Your task to perform on an android device: turn off picture-in-picture Image 0: 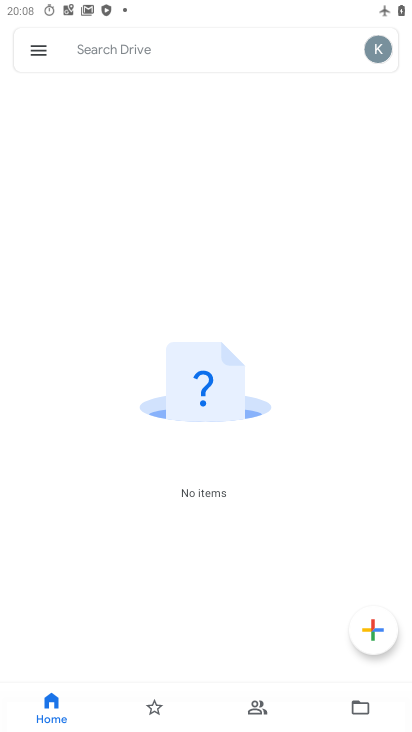
Step 0: press home button
Your task to perform on an android device: turn off picture-in-picture Image 1: 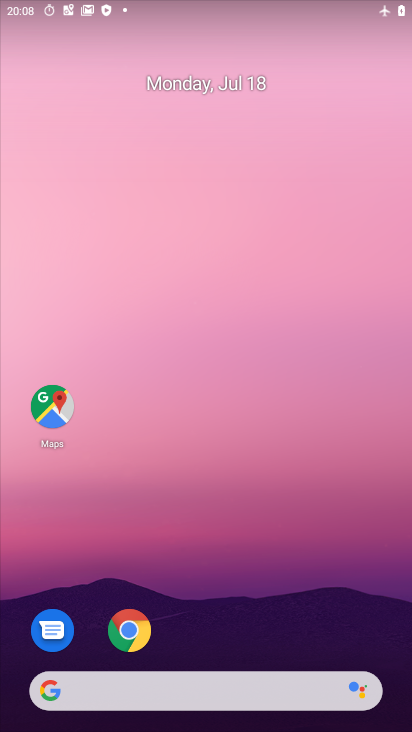
Step 1: drag from (272, 602) to (351, 97)
Your task to perform on an android device: turn off picture-in-picture Image 2: 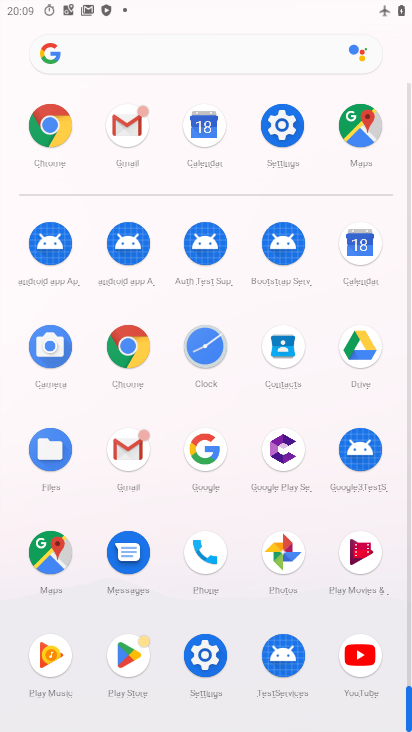
Step 2: click (70, 140)
Your task to perform on an android device: turn off picture-in-picture Image 3: 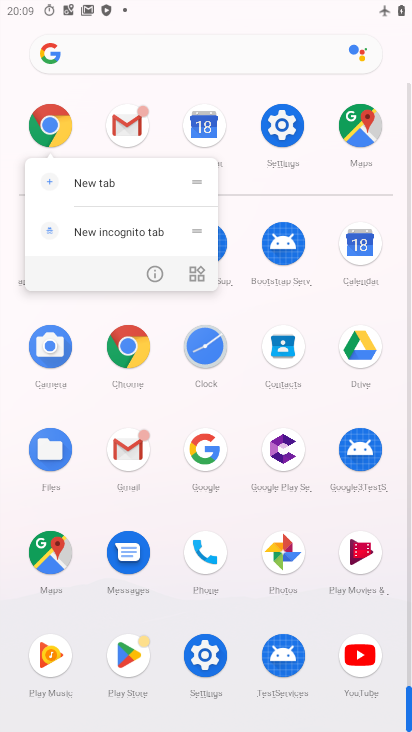
Step 3: click (152, 277)
Your task to perform on an android device: turn off picture-in-picture Image 4: 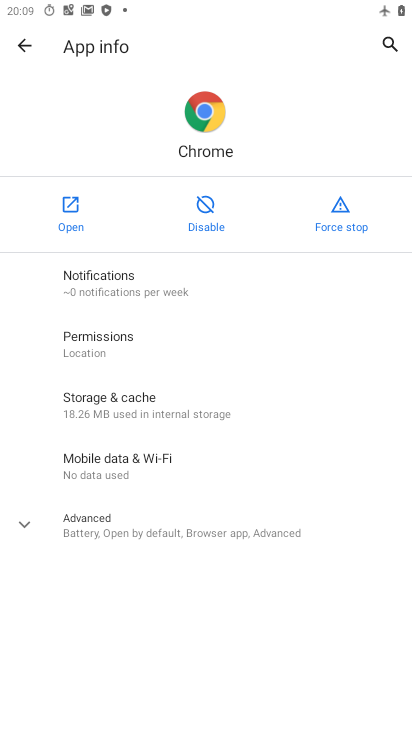
Step 4: click (81, 519)
Your task to perform on an android device: turn off picture-in-picture Image 5: 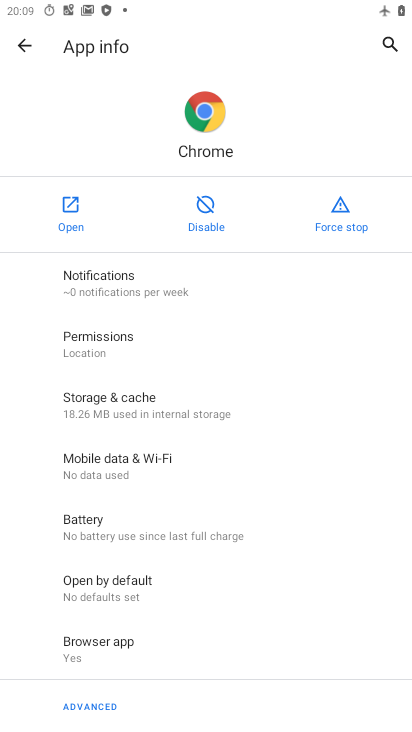
Step 5: drag from (127, 644) to (222, 251)
Your task to perform on an android device: turn off picture-in-picture Image 6: 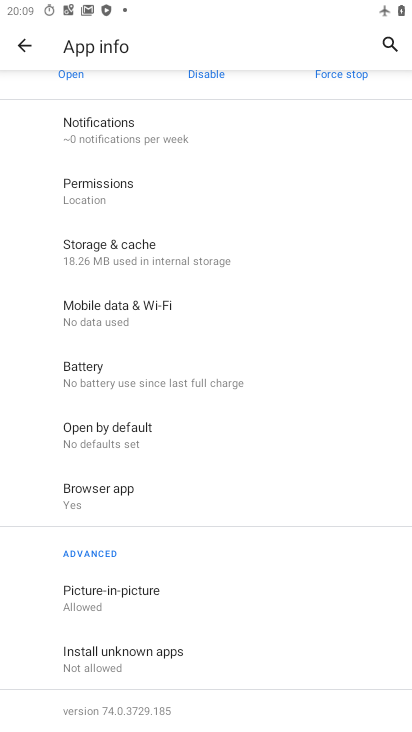
Step 6: click (89, 615)
Your task to perform on an android device: turn off picture-in-picture Image 7: 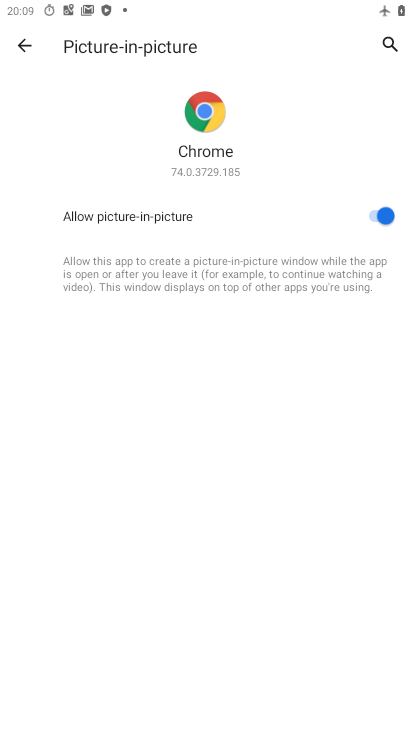
Step 7: click (377, 214)
Your task to perform on an android device: turn off picture-in-picture Image 8: 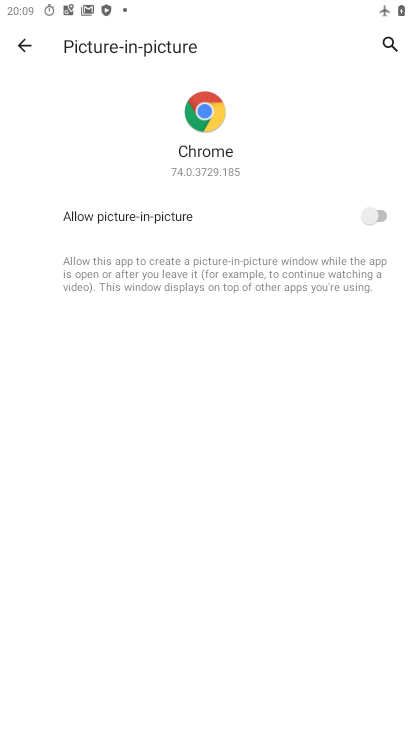
Step 8: task complete